Your task to perform on an android device: turn notification dots off Image 0: 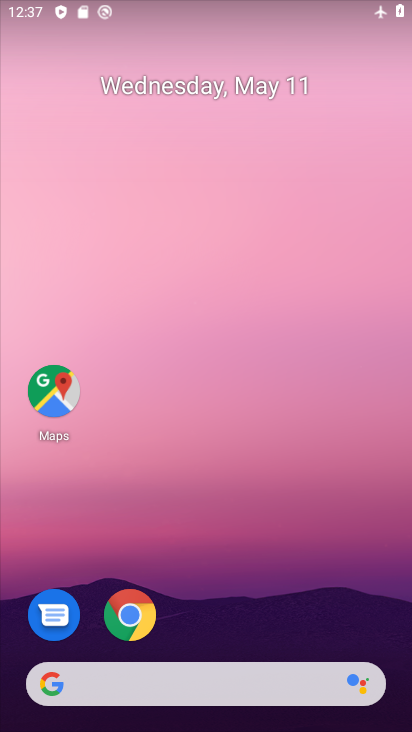
Step 0: press home button
Your task to perform on an android device: turn notification dots off Image 1: 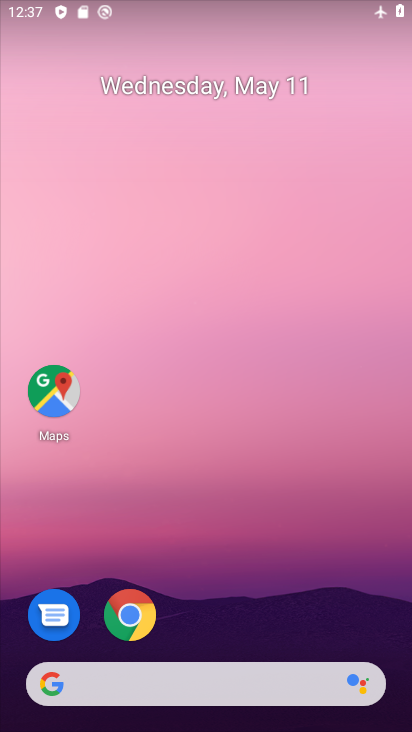
Step 1: drag from (376, 615) to (363, 164)
Your task to perform on an android device: turn notification dots off Image 2: 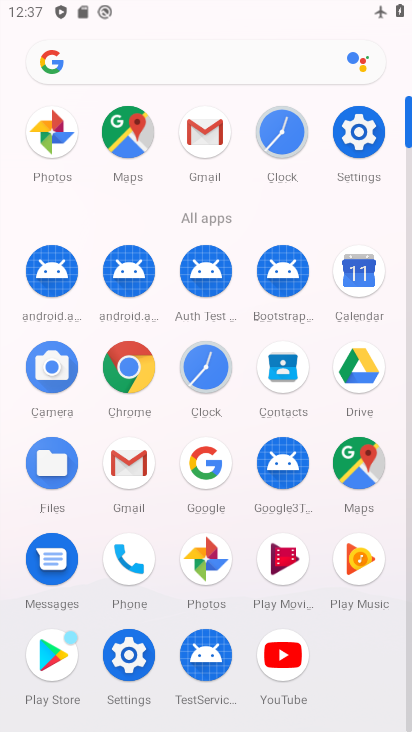
Step 2: click (134, 660)
Your task to perform on an android device: turn notification dots off Image 3: 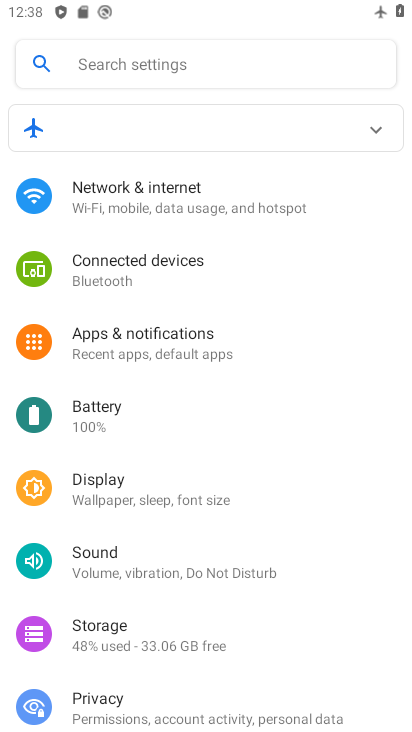
Step 3: drag from (295, 626) to (354, 309)
Your task to perform on an android device: turn notification dots off Image 4: 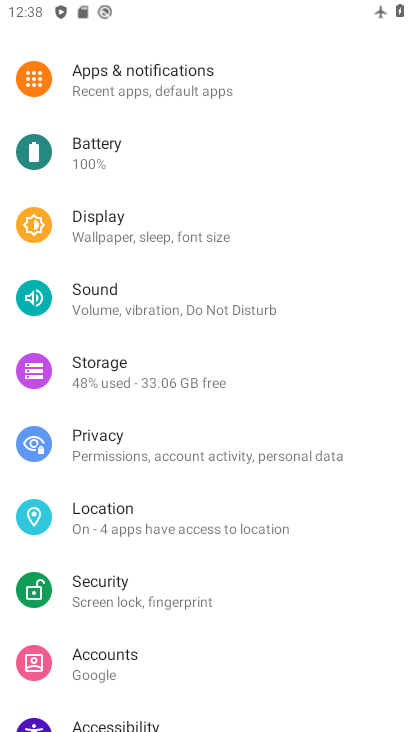
Step 4: click (166, 85)
Your task to perform on an android device: turn notification dots off Image 5: 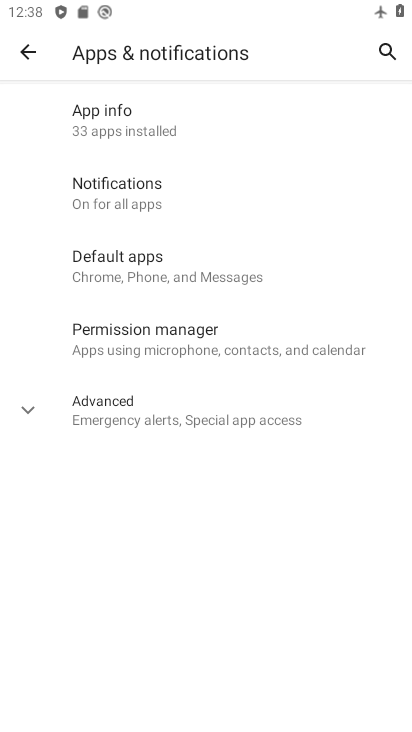
Step 5: click (177, 185)
Your task to perform on an android device: turn notification dots off Image 6: 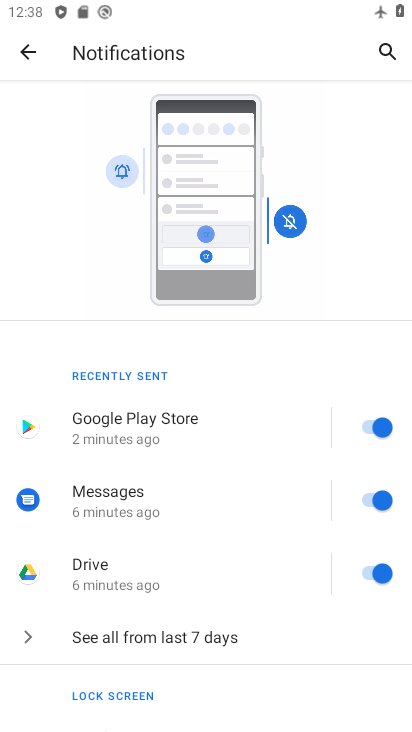
Step 6: drag from (263, 548) to (288, 132)
Your task to perform on an android device: turn notification dots off Image 7: 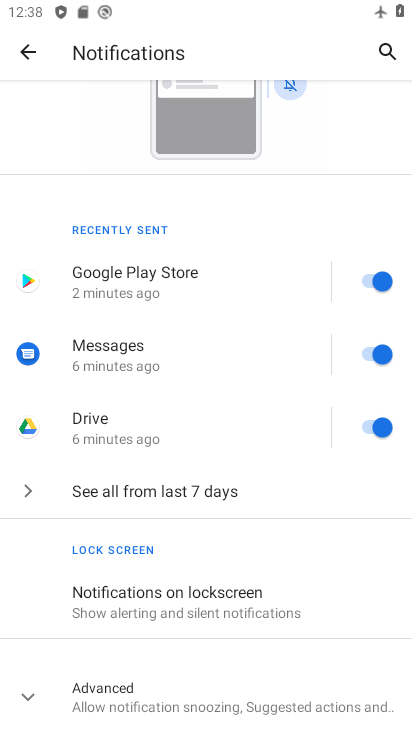
Step 7: drag from (306, 643) to (280, 393)
Your task to perform on an android device: turn notification dots off Image 8: 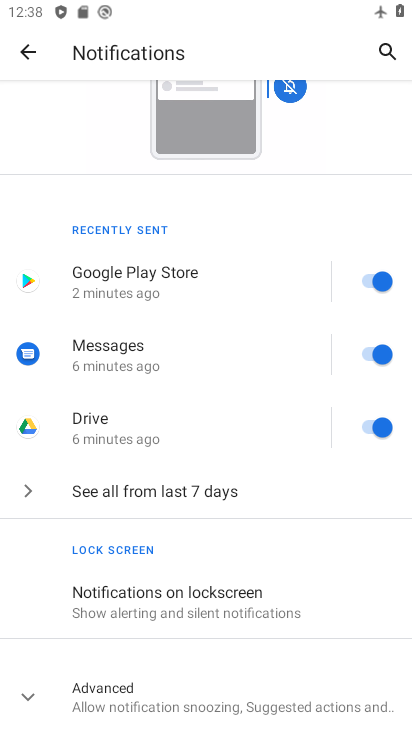
Step 8: click (266, 681)
Your task to perform on an android device: turn notification dots off Image 9: 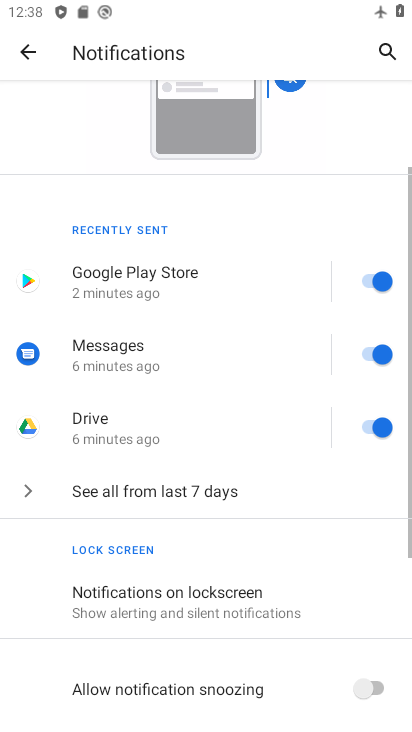
Step 9: drag from (288, 682) to (289, 416)
Your task to perform on an android device: turn notification dots off Image 10: 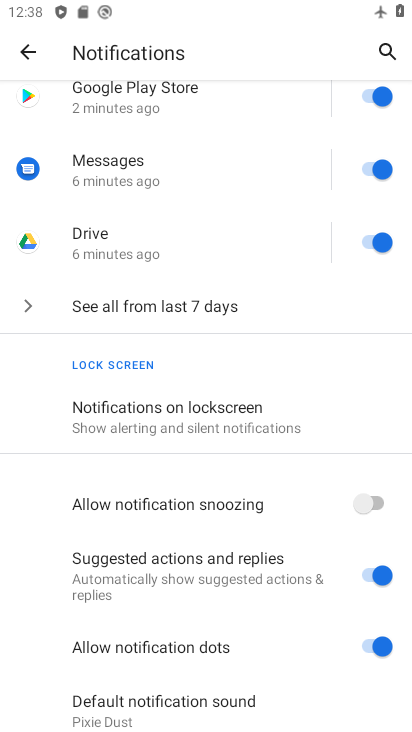
Step 10: click (372, 646)
Your task to perform on an android device: turn notification dots off Image 11: 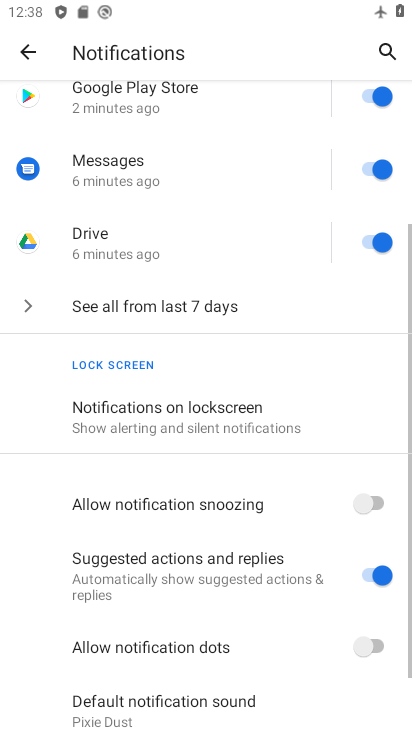
Step 11: task complete